Your task to perform on an android device: open app "Lyft - Rideshare, Bikes, Scooters & Transit" Image 0: 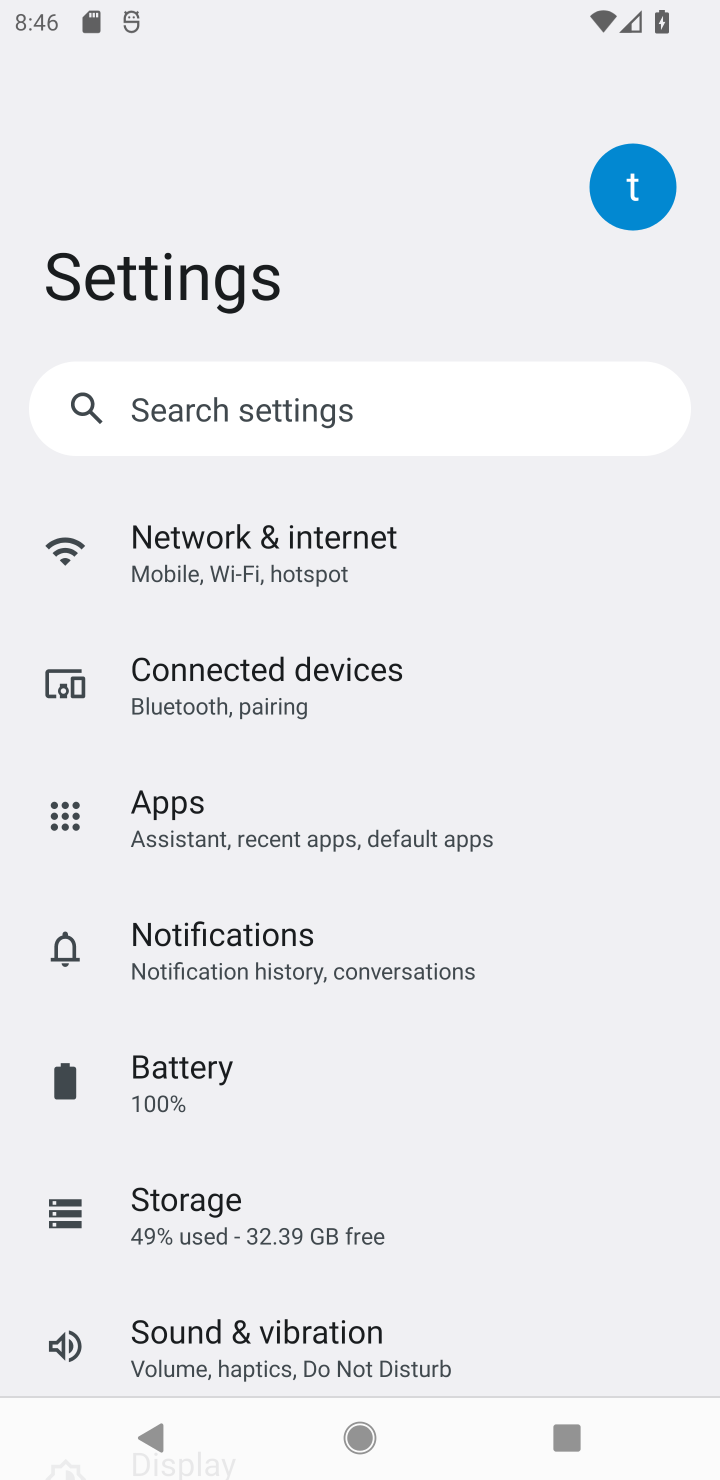
Step 0: press home button
Your task to perform on an android device: open app "Lyft - Rideshare, Bikes, Scooters & Transit" Image 1: 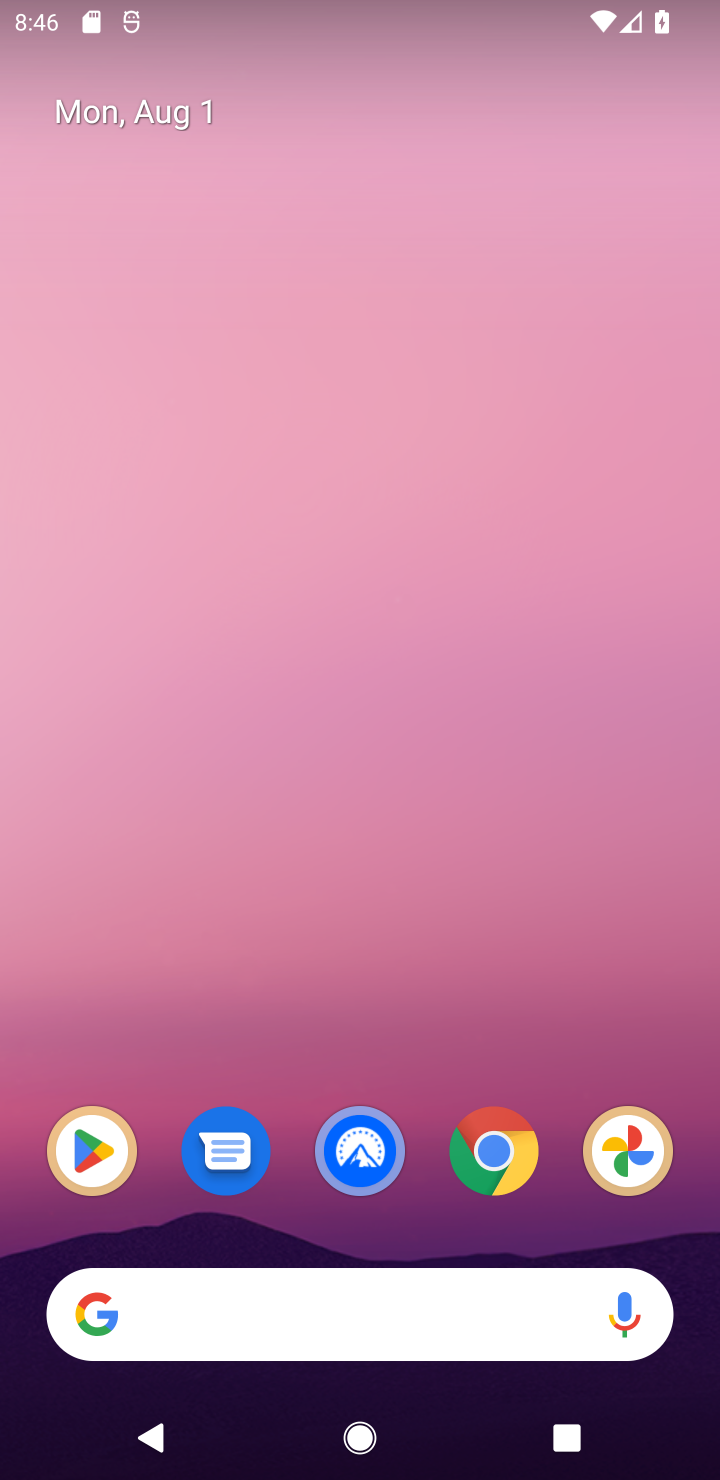
Step 1: click (103, 1134)
Your task to perform on an android device: open app "Lyft - Rideshare, Bikes, Scooters & Transit" Image 2: 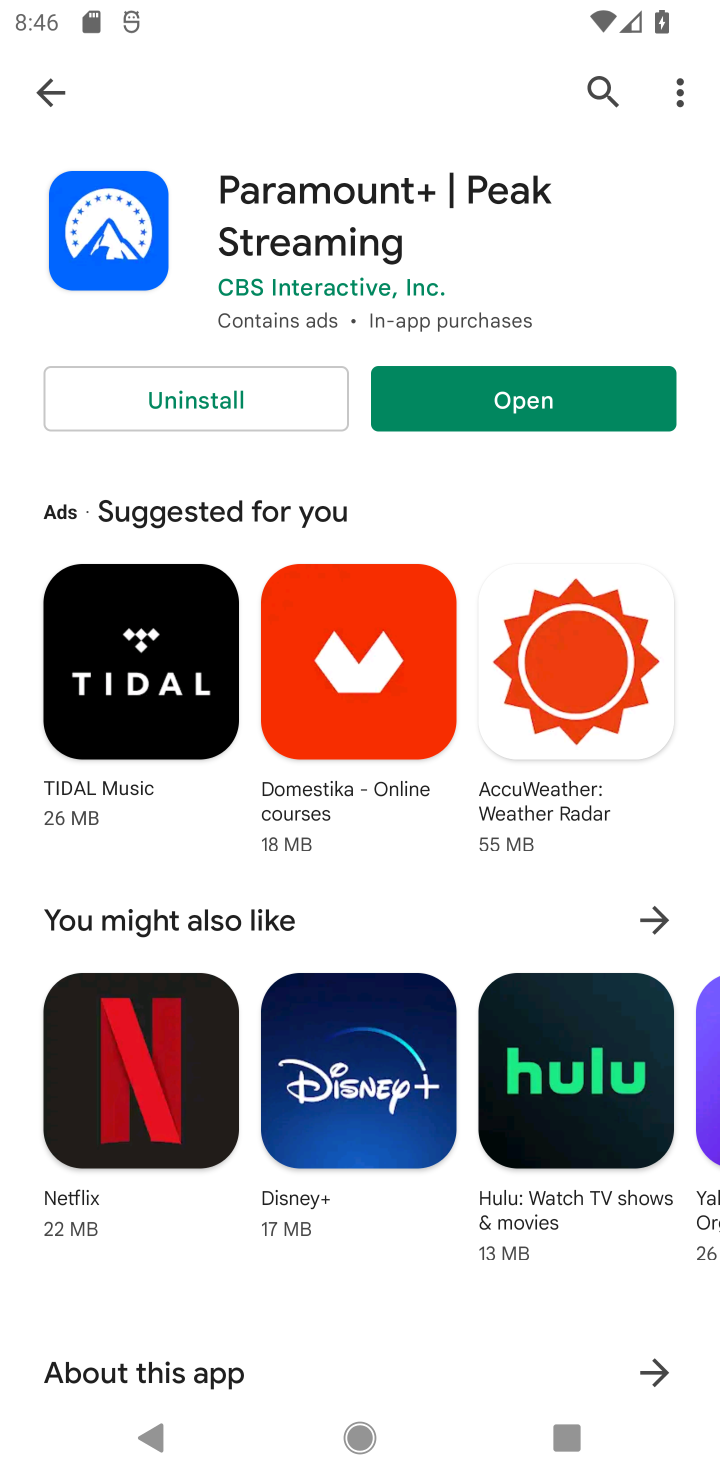
Step 2: click (592, 90)
Your task to perform on an android device: open app "Lyft - Rideshare, Bikes, Scooters & Transit" Image 3: 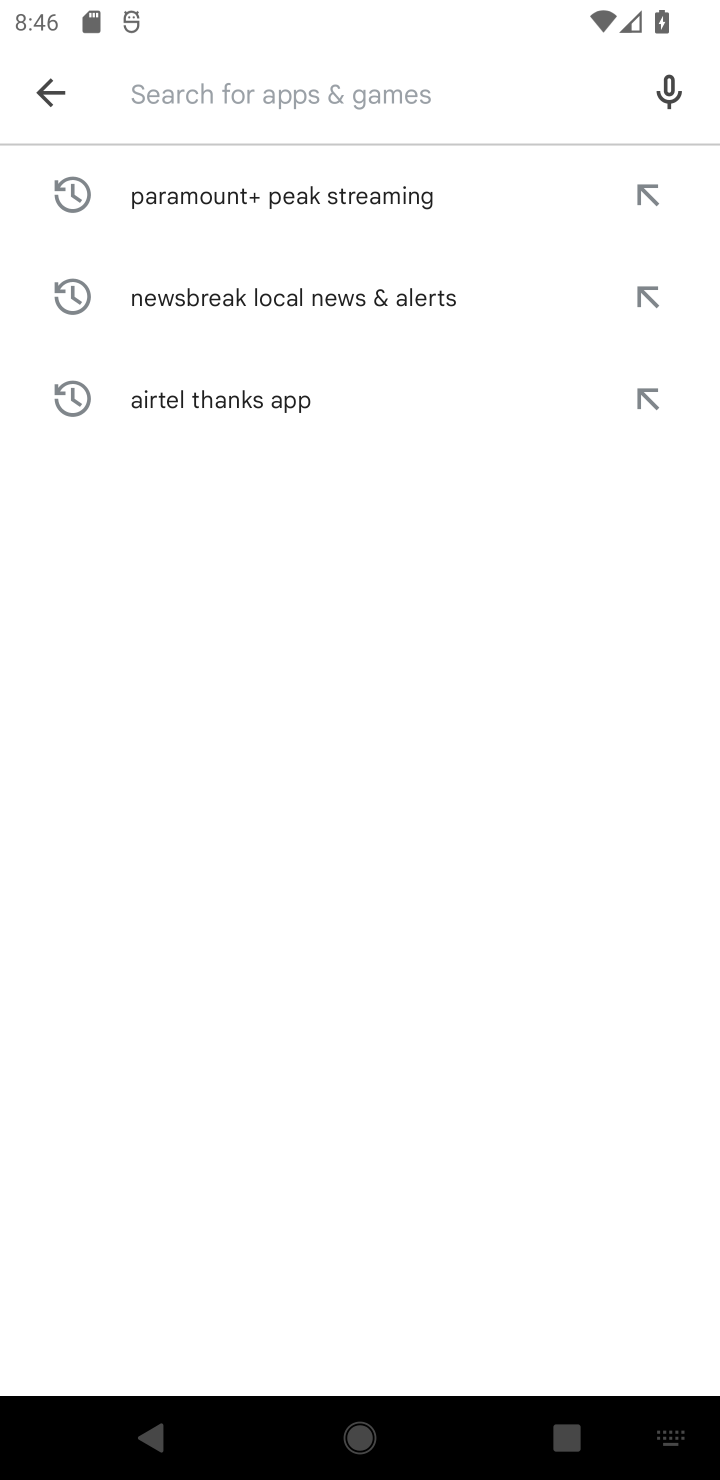
Step 3: type "Lyft - Rideshare, Bikes, Scooters & Transit"
Your task to perform on an android device: open app "Lyft - Rideshare, Bikes, Scooters & Transit" Image 4: 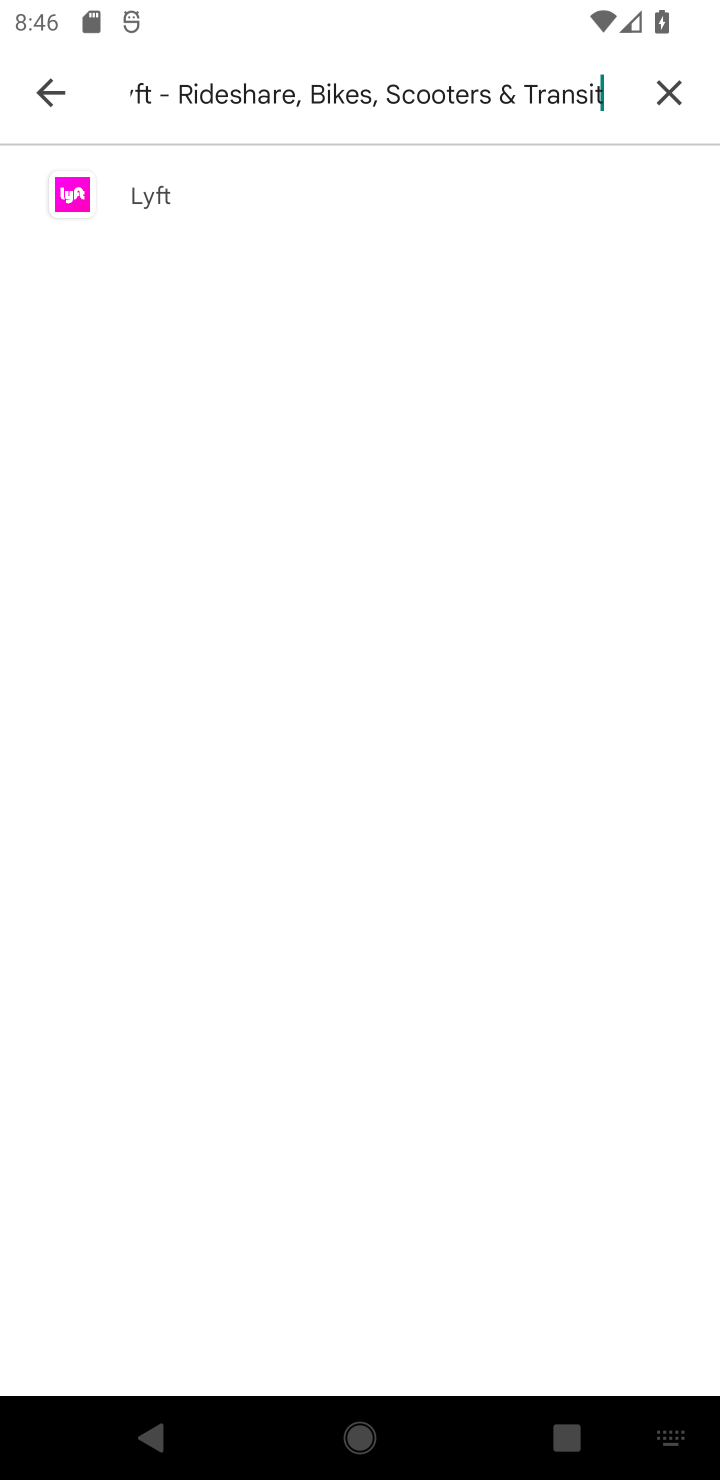
Step 4: click (252, 184)
Your task to perform on an android device: open app "Lyft - Rideshare, Bikes, Scooters & Transit" Image 5: 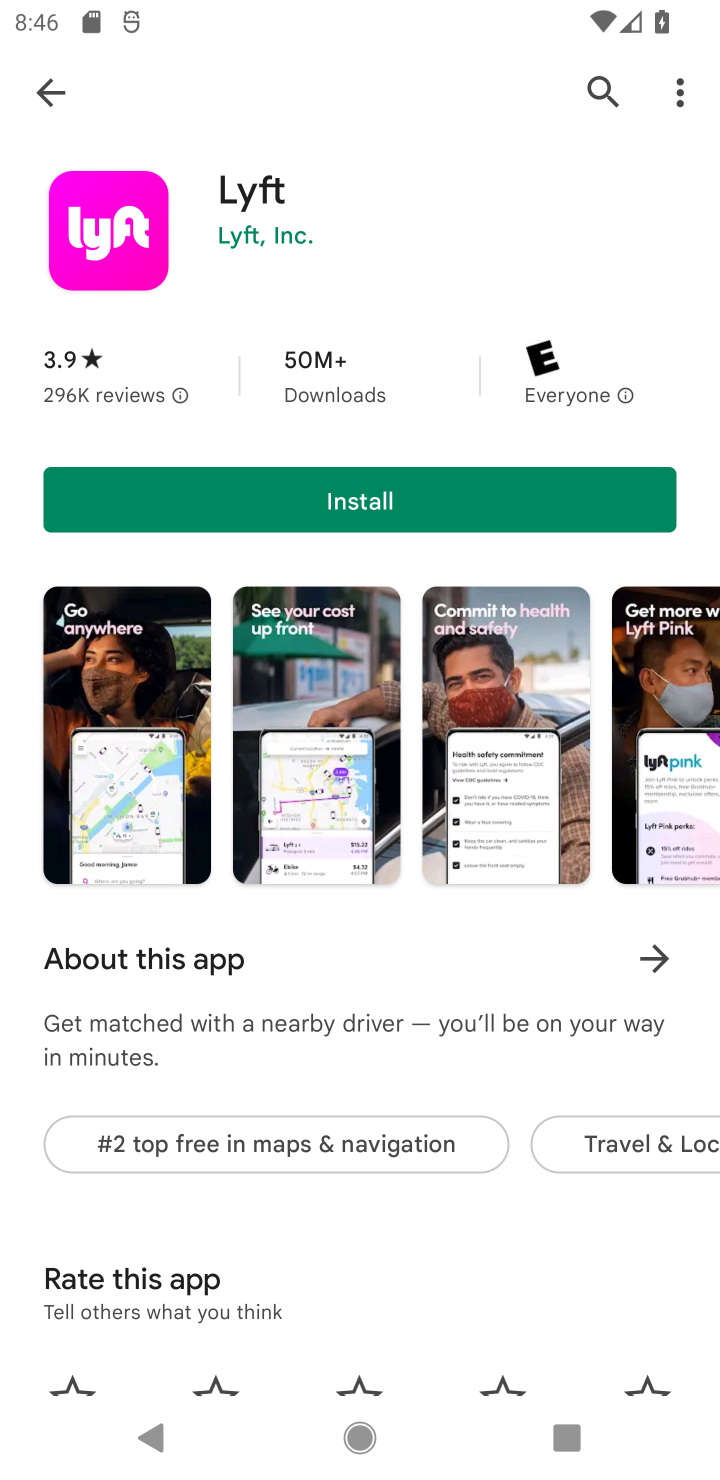
Step 5: task complete